Your task to perform on an android device: Open Google Image 0: 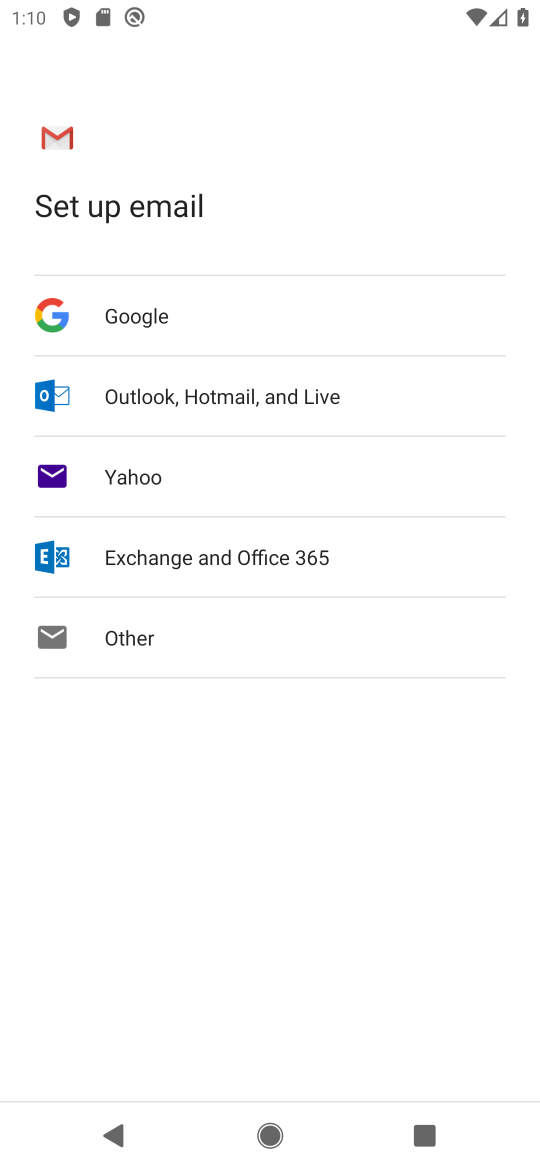
Step 0: press home button
Your task to perform on an android device: Open Google Image 1: 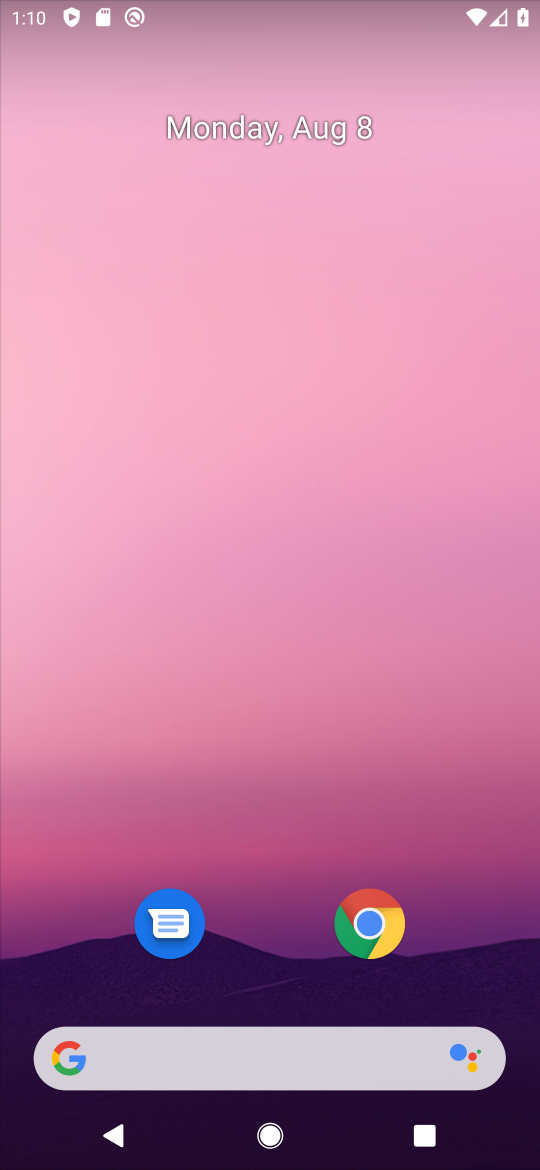
Step 1: click (284, 1036)
Your task to perform on an android device: Open Google Image 2: 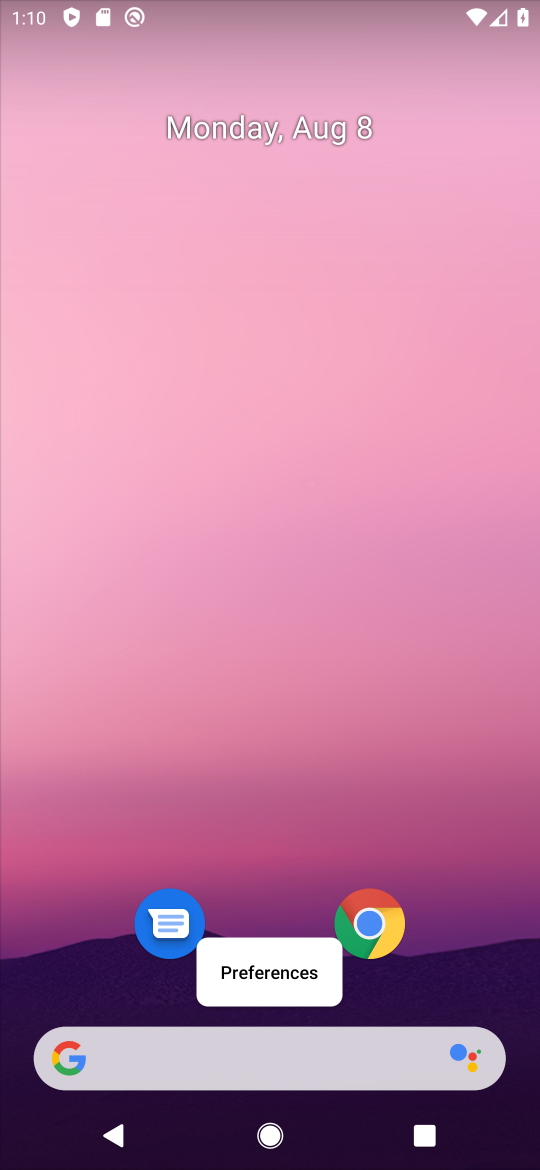
Step 2: click (273, 1060)
Your task to perform on an android device: Open Google Image 3: 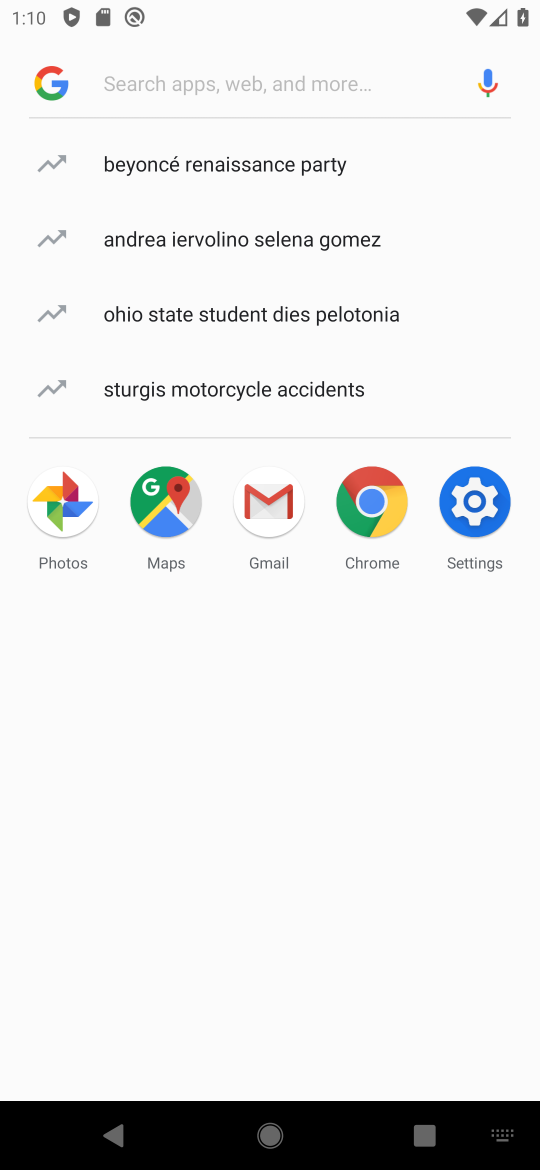
Step 3: task complete